Your task to perform on an android device: Go to Wikipedia Image 0: 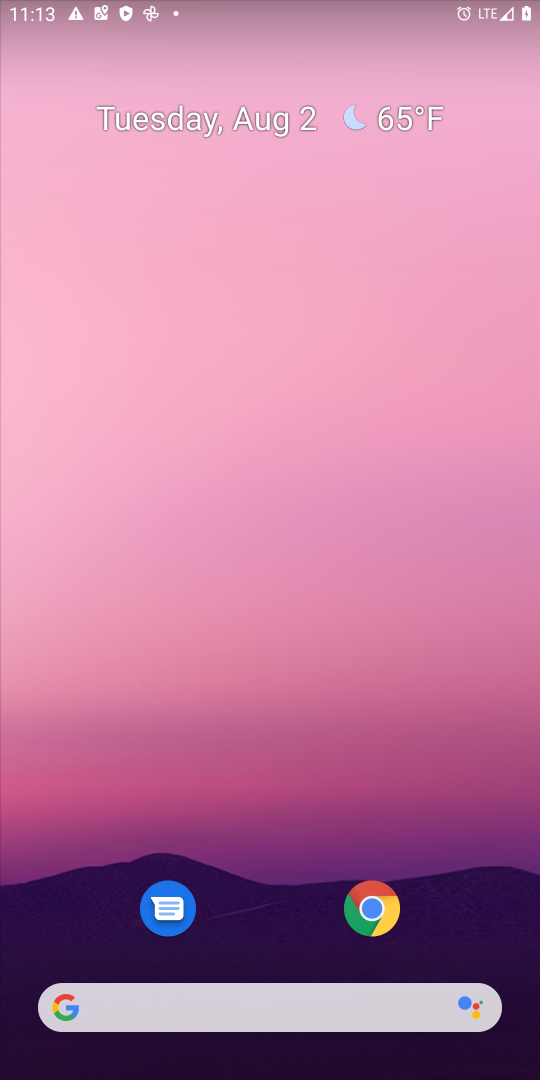
Step 0: drag from (278, 663) to (288, 129)
Your task to perform on an android device: Go to Wikipedia Image 1: 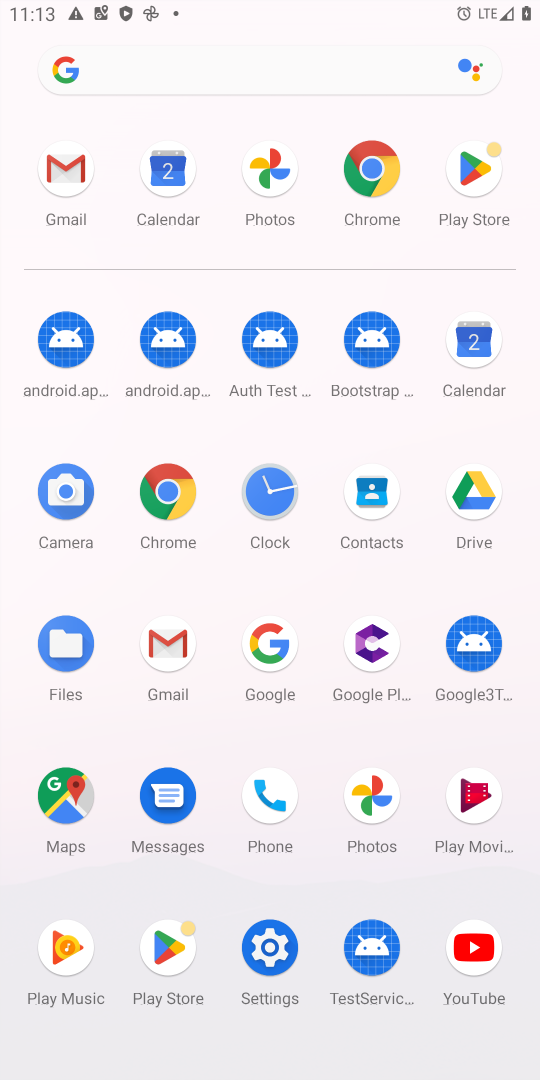
Step 1: click (377, 197)
Your task to perform on an android device: Go to Wikipedia Image 2: 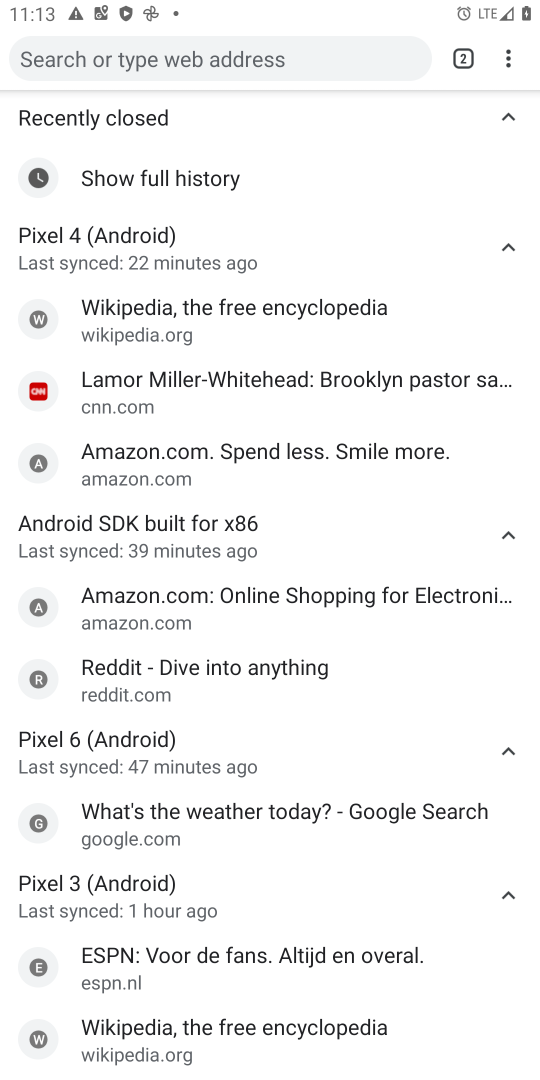
Step 2: click (470, 55)
Your task to perform on an android device: Go to Wikipedia Image 3: 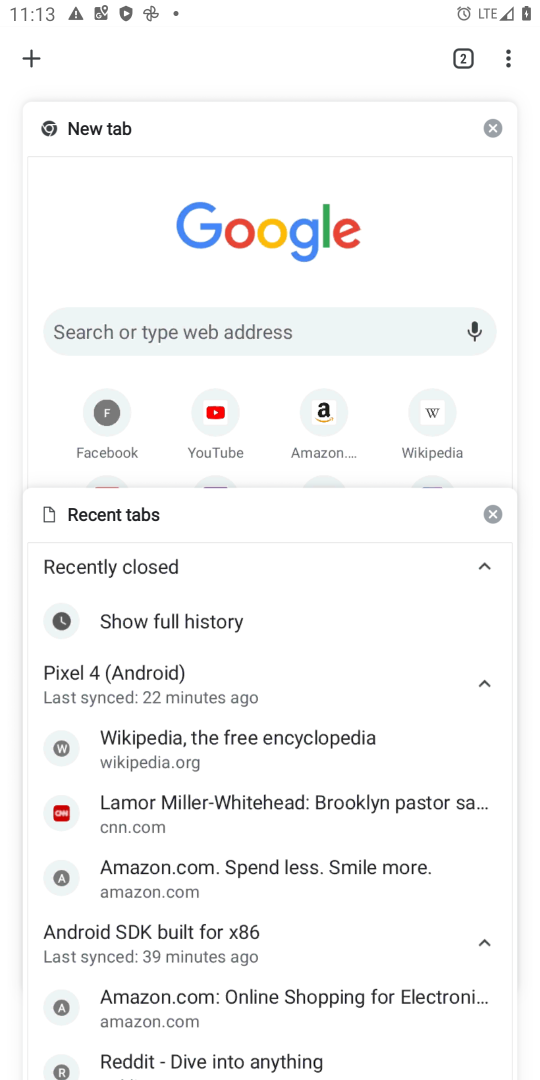
Step 3: click (172, 202)
Your task to perform on an android device: Go to Wikipedia Image 4: 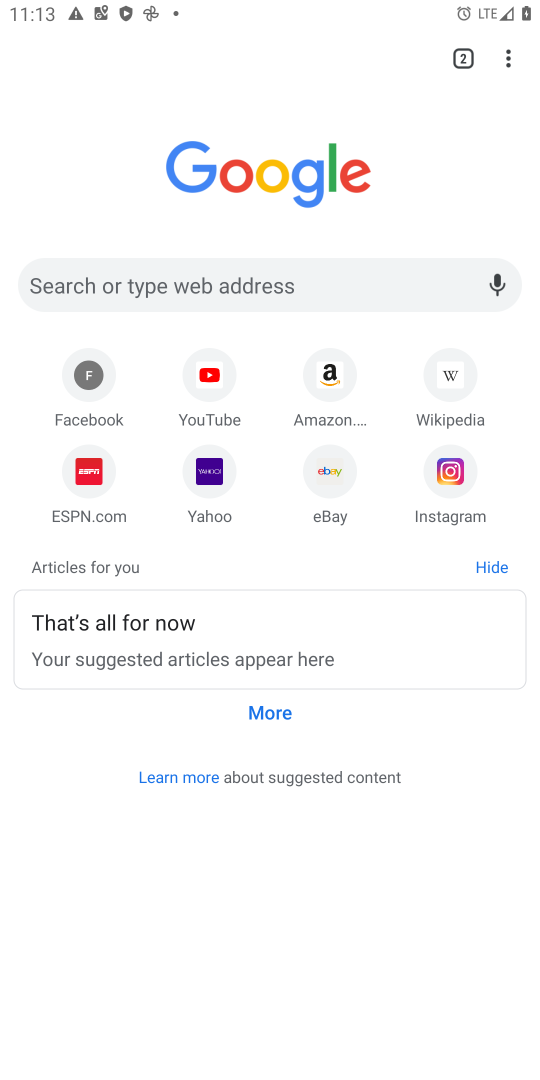
Step 4: click (461, 385)
Your task to perform on an android device: Go to Wikipedia Image 5: 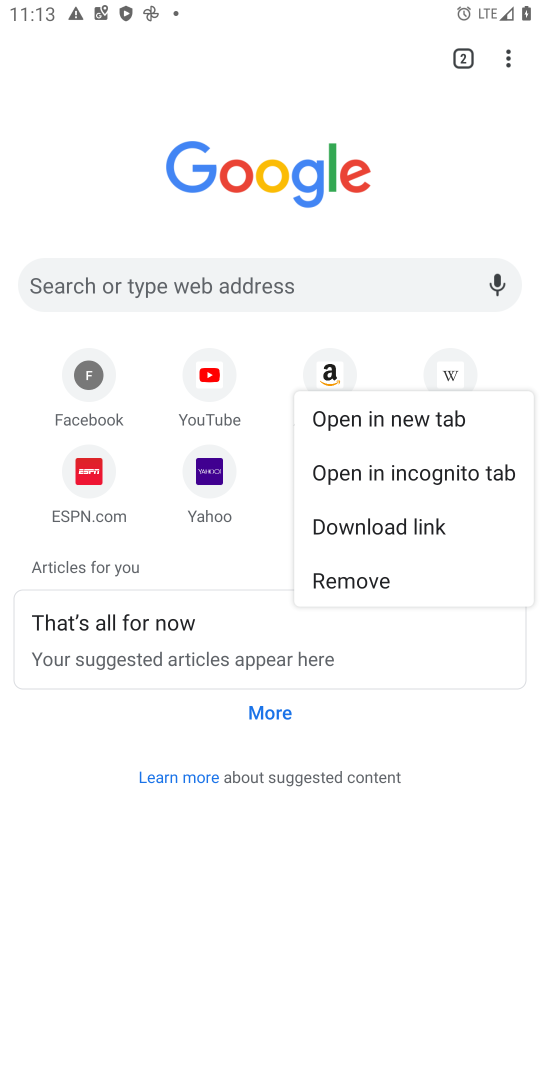
Step 5: click (446, 360)
Your task to perform on an android device: Go to Wikipedia Image 6: 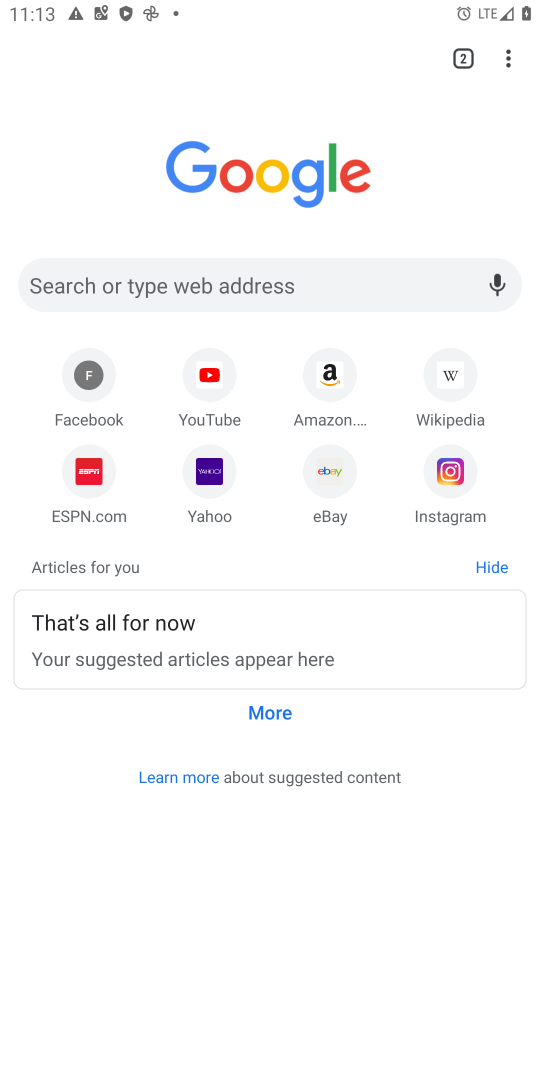
Step 6: click (459, 396)
Your task to perform on an android device: Go to Wikipedia Image 7: 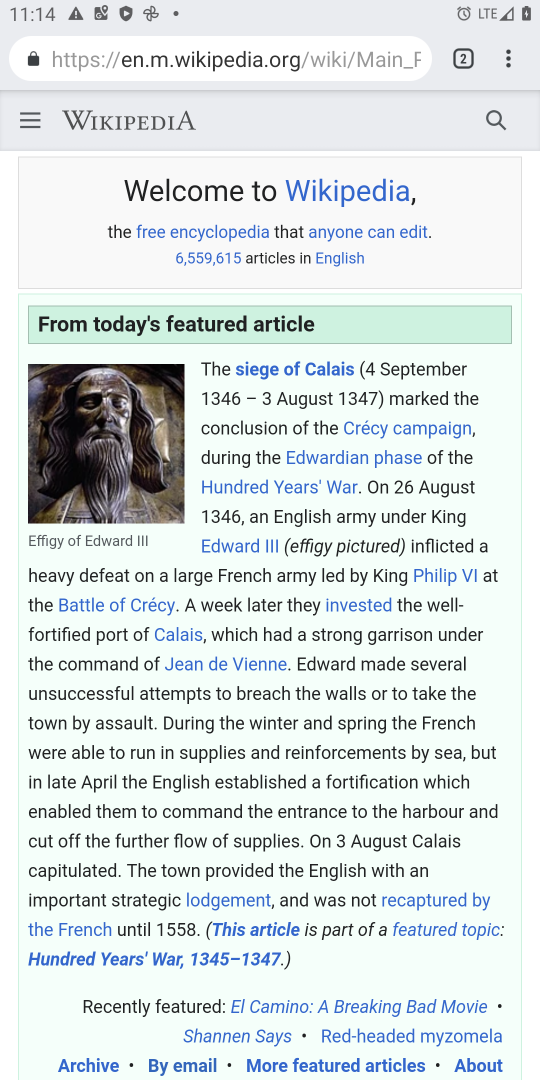
Step 7: task complete